Your task to perform on an android device: Open Google Maps Image 0: 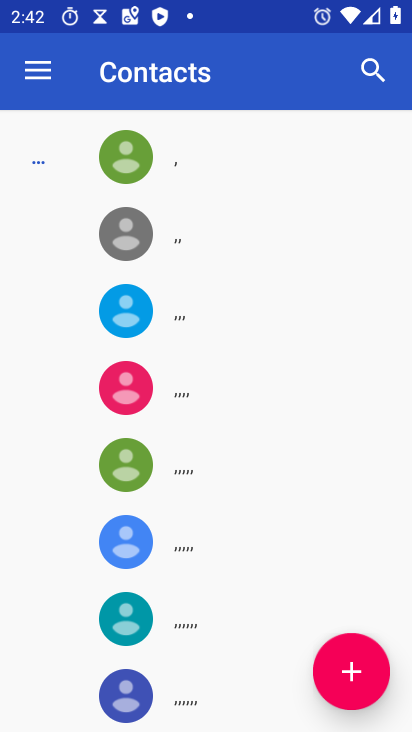
Step 0: press home button
Your task to perform on an android device: Open Google Maps Image 1: 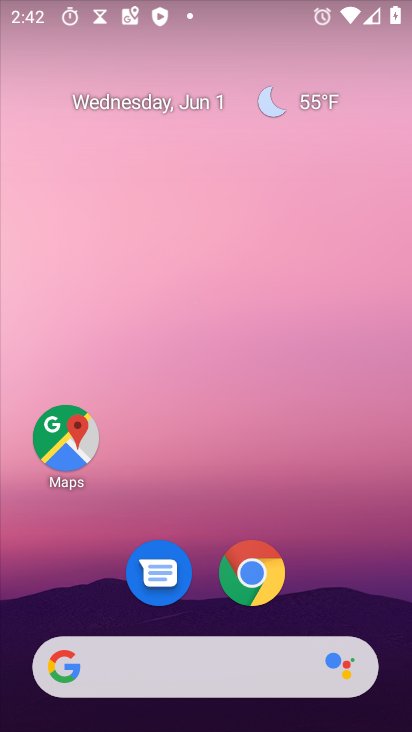
Step 1: drag from (378, 504) to (411, 25)
Your task to perform on an android device: Open Google Maps Image 2: 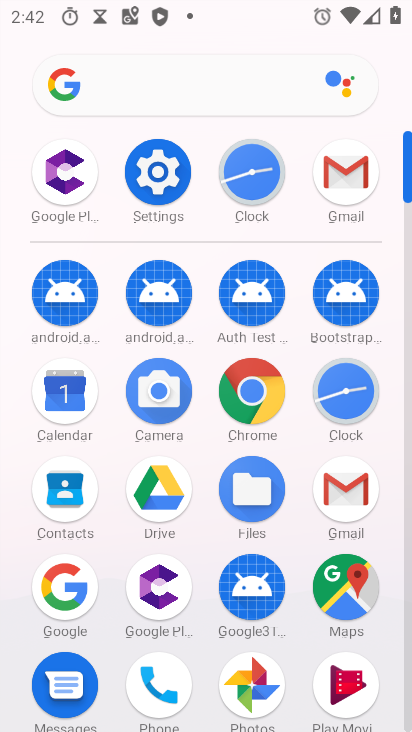
Step 2: click (354, 601)
Your task to perform on an android device: Open Google Maps Image 3: 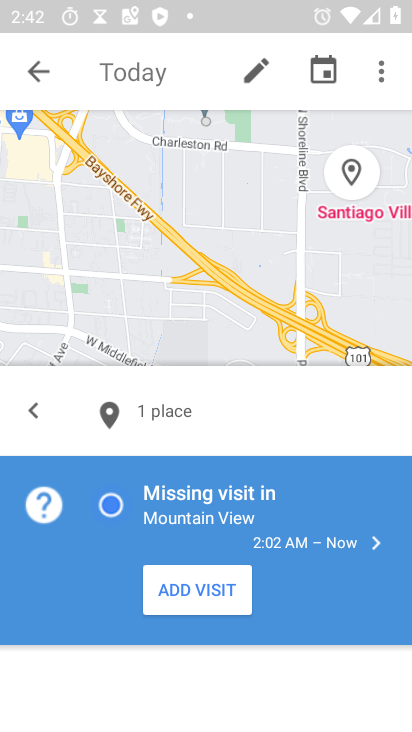
Step 3: task complete